Your task to perform on an android device: open app "Microsoft Excel" (install if not already installed), go to login, and select forgot password Image 0: 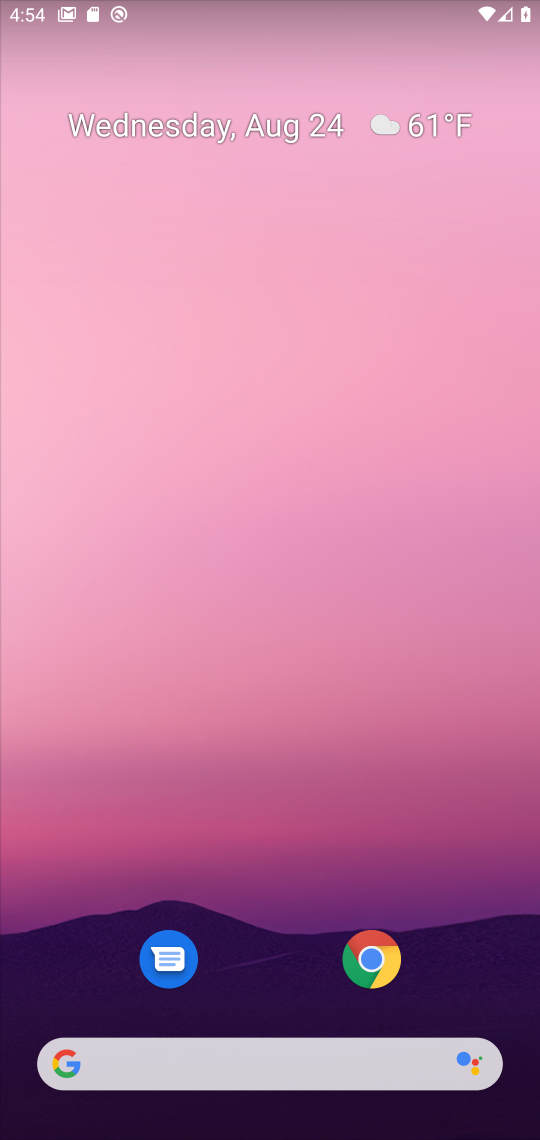
Step 0: drag from (283, 597) to (283, 336)
Your task to perform on an android device: open app "Microsoft Excel" (install if not already installed), go to login, and select forgot password Image 1: 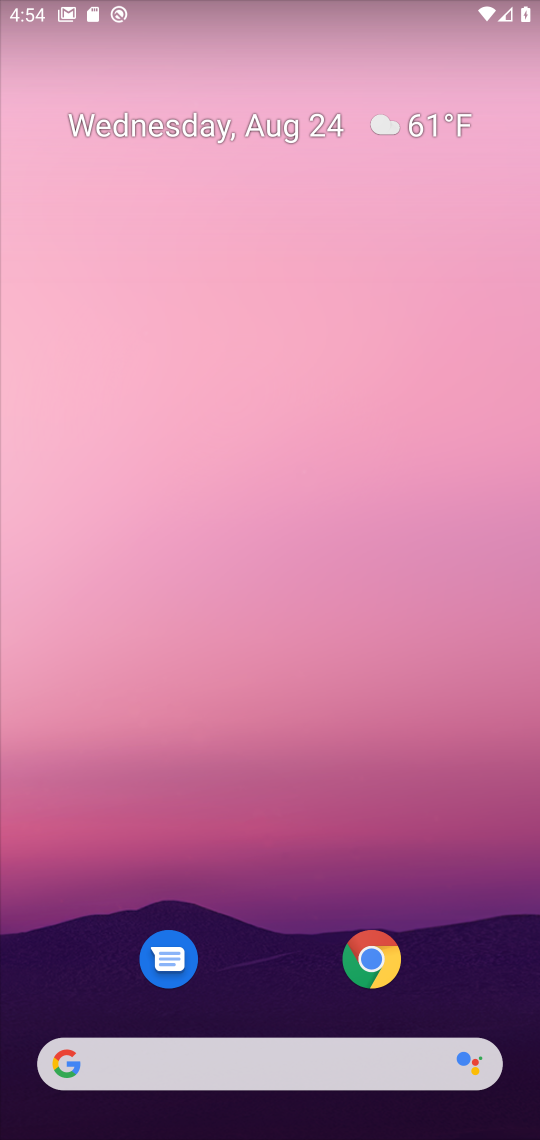
Step 1: drag from (273, 1029) to (253, 243)
Your task to perform on an android device: open app "Microsoft Excel" (install if not already installed), go to login, and select forgot password Image 2: 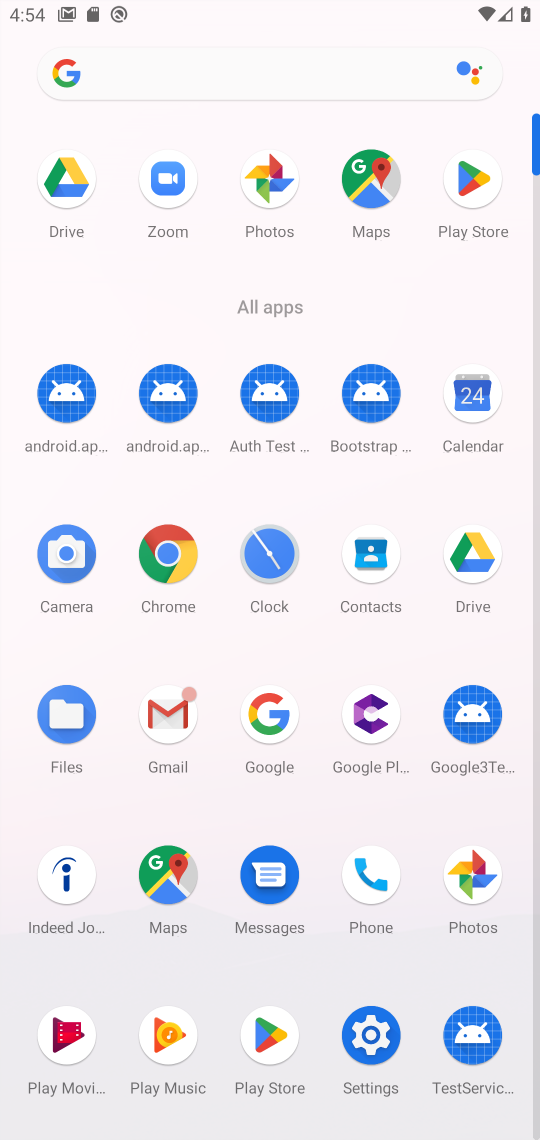
Step 2: click (469, 175)
Your task to perform on an android device: open app "Microsoft Excel" (install if not already installed), go to login, and select forgot password Image 3: 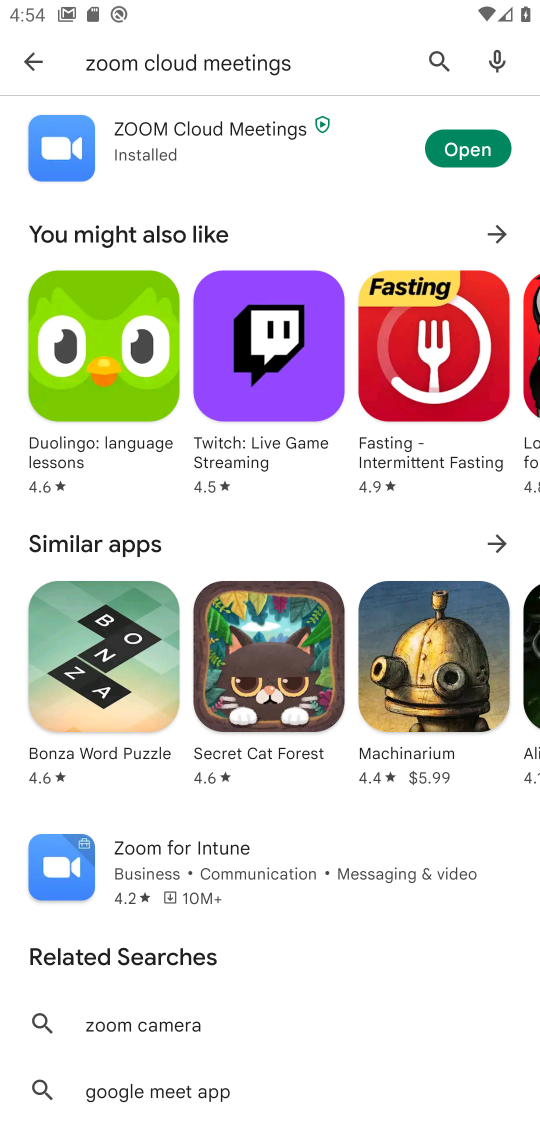
Step 3: click (439, 60)
Your task to perform on an android device: open app "Microsoft Excel" (install if not already installed), go to login, and select forgot password Image 4: 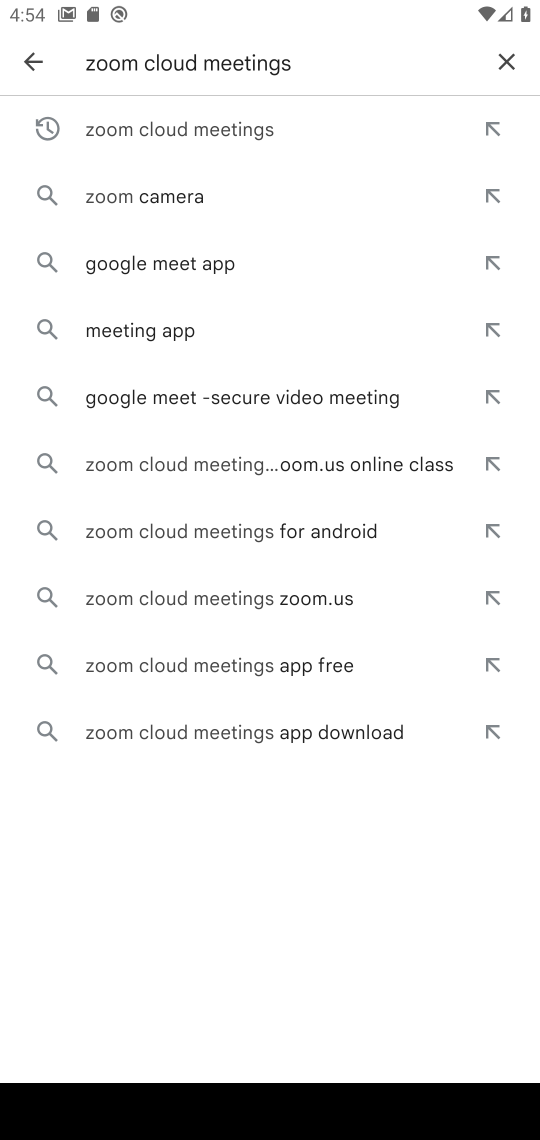
Step 4: click (509, 61)
Your task to perform on an android device: open app "Microsoft Excel" (install if not already installed), go to login, and select forgot password Image 5: 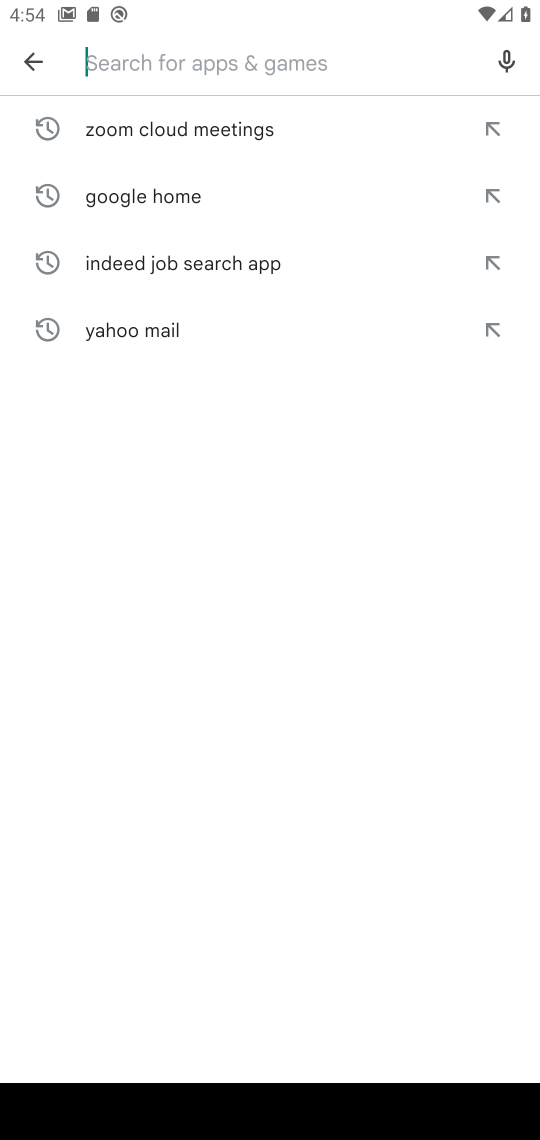
Step 5: type "Microsoft Excel"
Your task to perform on an android device: open app "Microsoft Excel" (install if not already installed), go to login, and select forgot password Image 6: 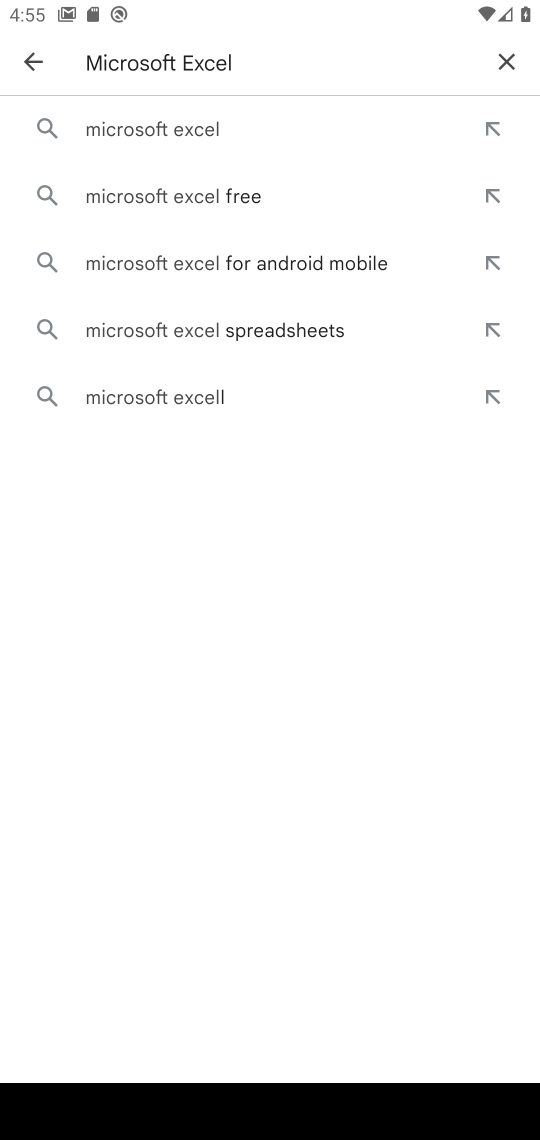
Step 6: click (174, 133)
Your task to perform on an android device: open app "Microsoft Excel" (install if not already installed), go to login, and select forgot password Image 7: 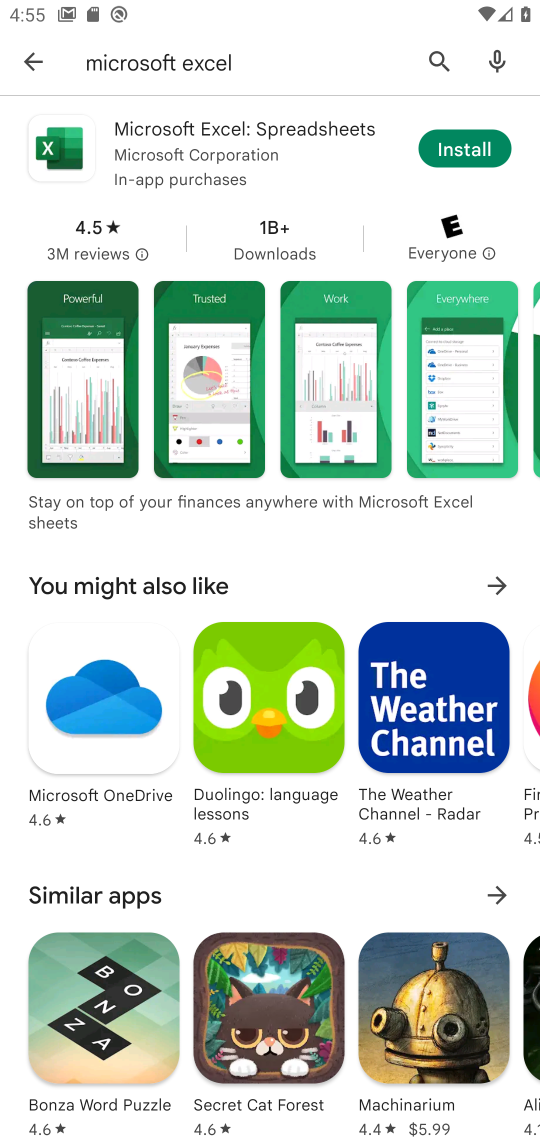
Step 7: click (446, 156)
Your task to perform on an android device: open app "Microsoft Excel" (install if not already installed), go to login, and select forgot password Image 8: 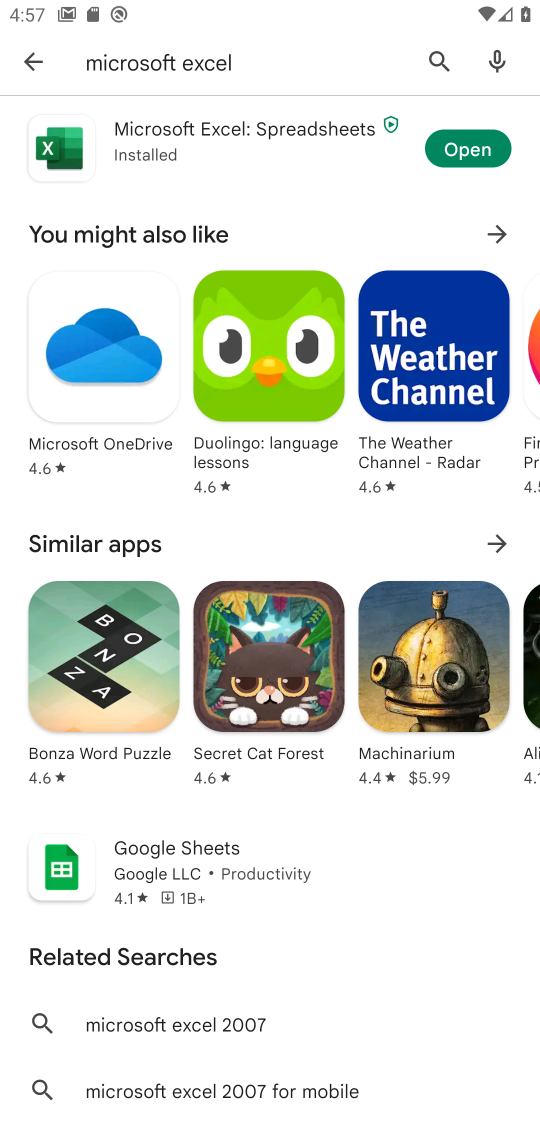
Step 8: click (381, 135)
Your task to perform on an android device: open app "Microsoft Excel" (install if not already installed), go to login, and select forgot password Image 9: 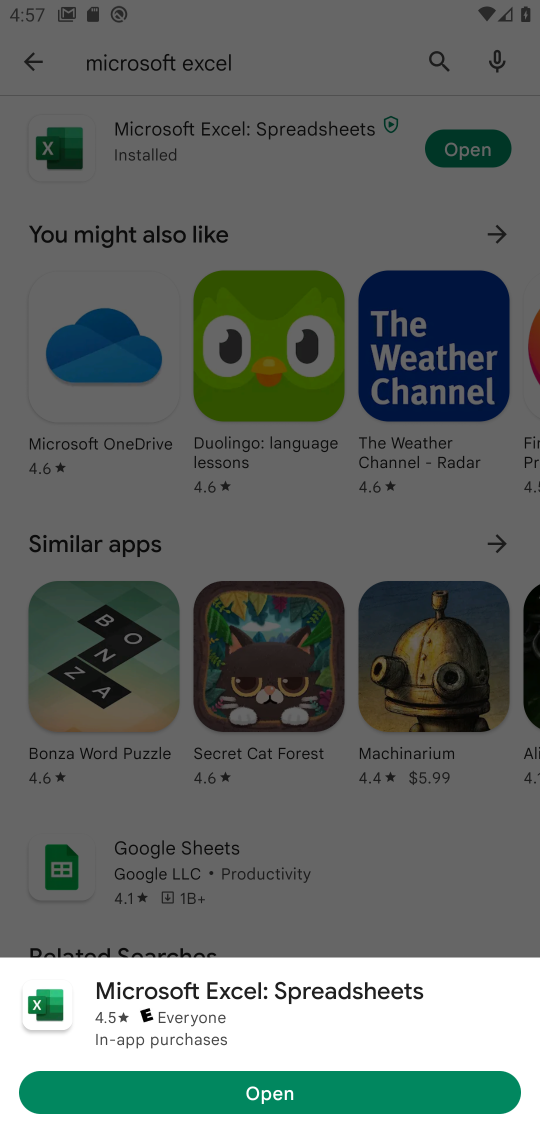
Step 9: click (252, 1082)
Your task to perform on an android device: open app "Microsoft Excel" (install if not already installed), go to login, and select forgot password Image 10: 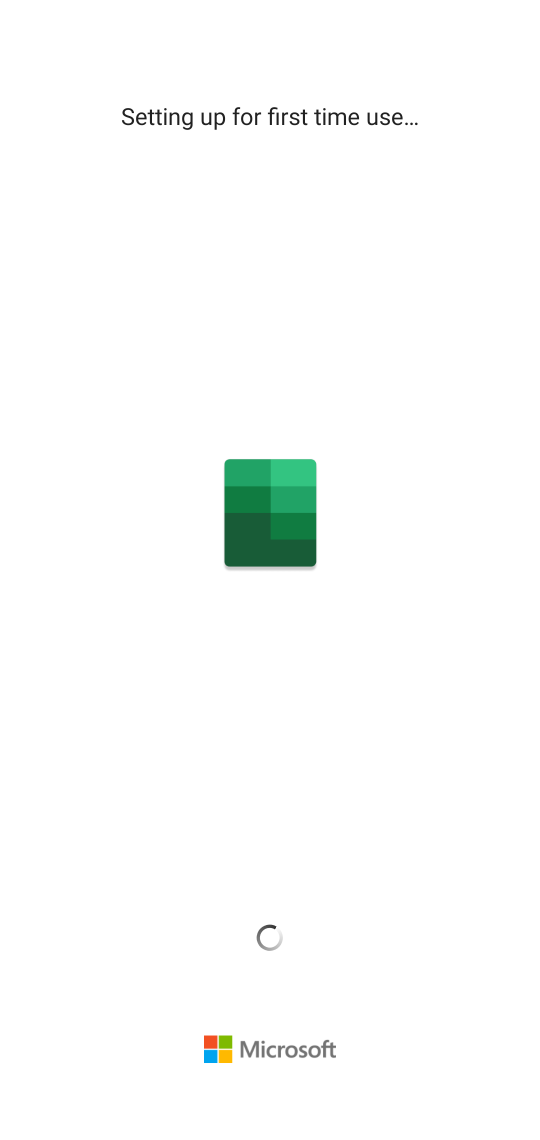
Step 10: task complete